Your task to perform on an android device: change the clock display to digital Image 0: 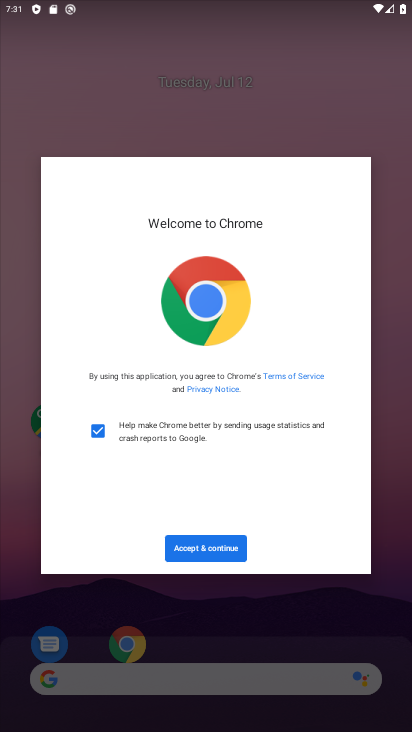
Step 0: click (240, 583)
Your task to perform on an android device: change the clock display to digital Image 1: 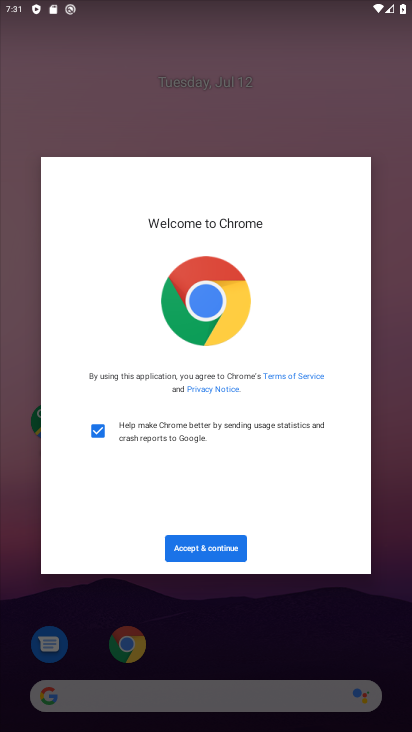
Step 1: press home button
Your task to perform on an android device: change the clock display to digital Image 2: 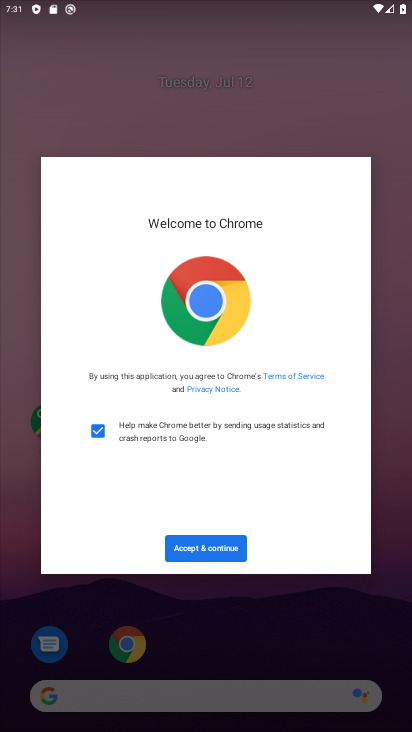
Step 2: drag from (290, 334) to (330, 150)
Your task to perform on an android device: change the clock display to digital Image 3: 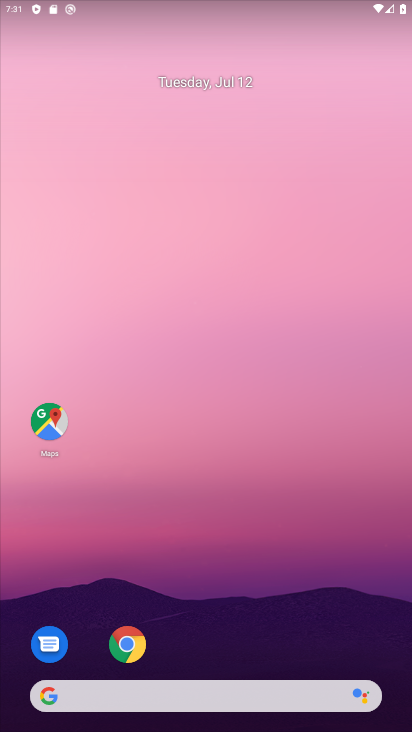
Step 3: drag from (179, 621) to (206, 313)
Your task to perform on an android device: change the clock display to digital Image 4: 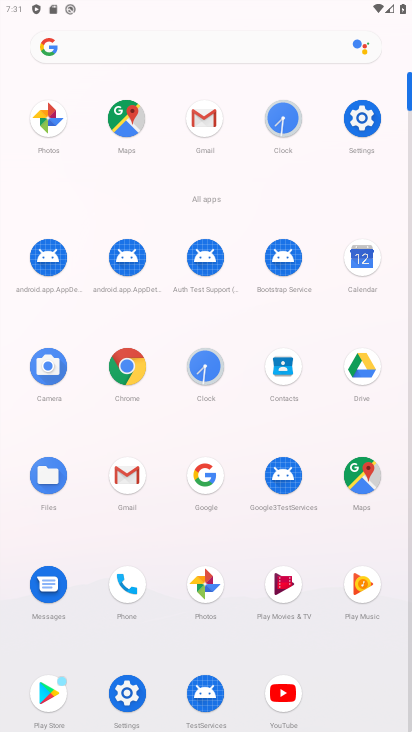
Step 4: click (202, 375)
Your task to perform on an android device: change the clock display to digital Image 5: 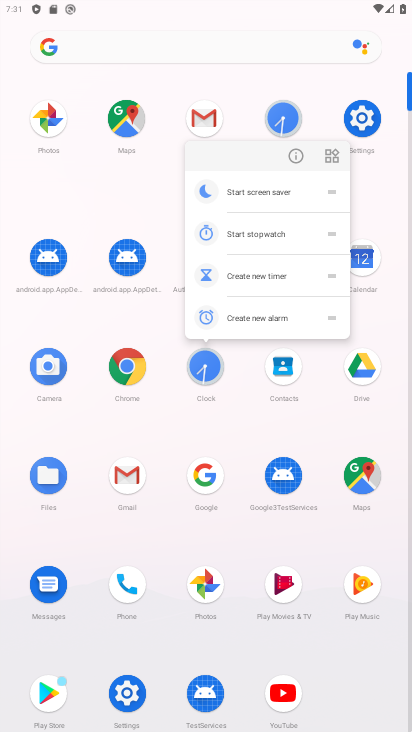
Step 5: click (296, 159)
Your task to perform on an android device: change the clock display to digital Image 6: 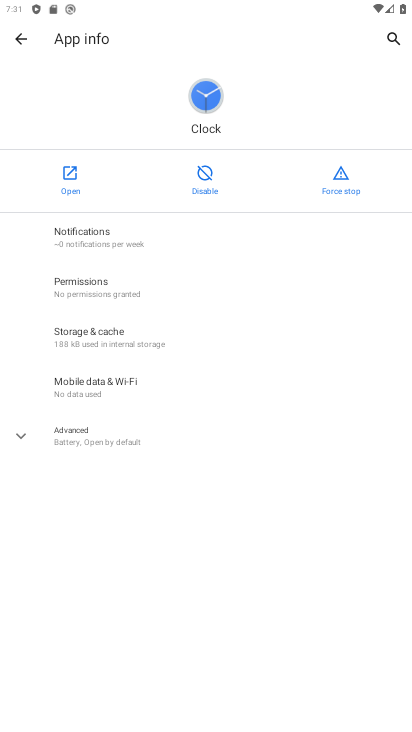
Step 6: click (71, 186)
Your task to perform on an android device: change the clock display to digital Image 7: 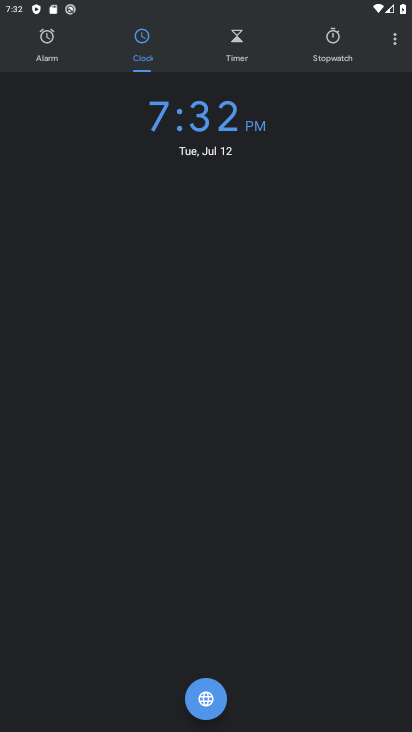
Step 7: click (269, 465)
Your task to perform on an android device: change the clock display to digital Image 8: 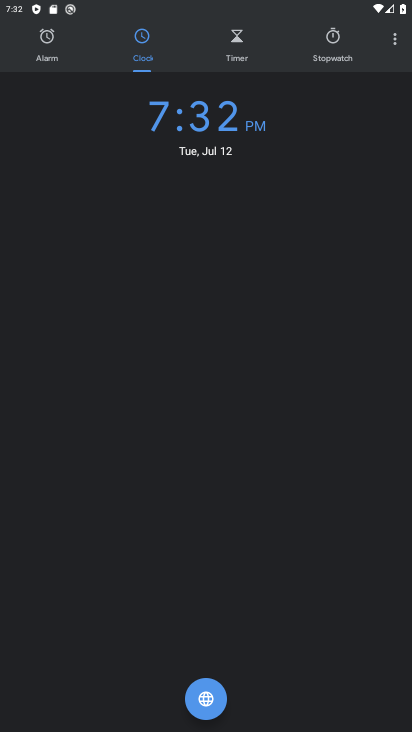
Step 8: drag from (411, 36) to (409, 0)
Your task to perform on an android device: change the clock display to digital Image 9: 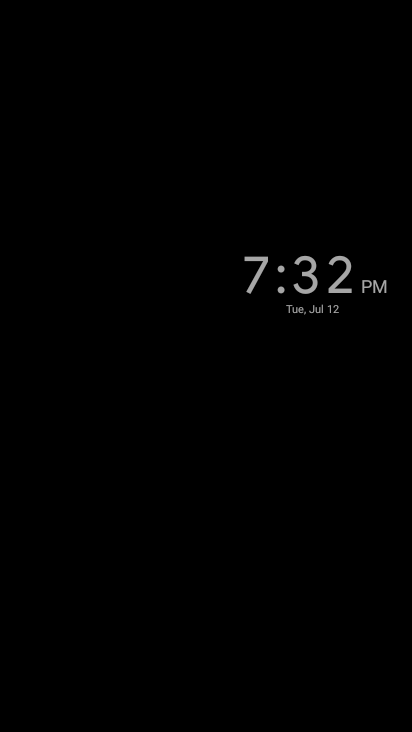
Step 9: click (199, 361)
Your task to perform on an android device: change the clock display to digital Image 10: 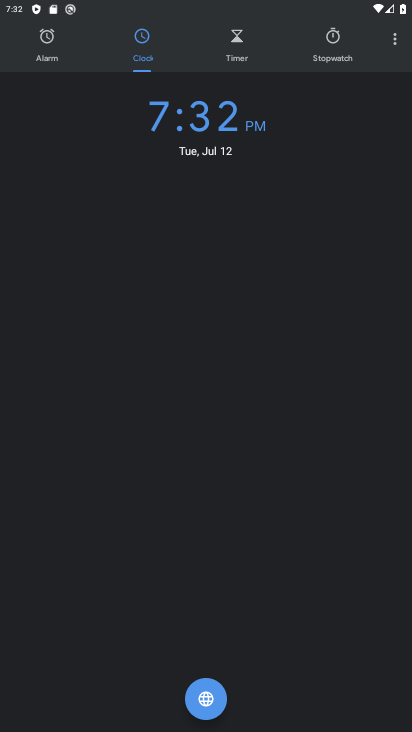
Step 10: click (391, 43)
Your task to perform on an android device: change the clock display to digital Image 11: 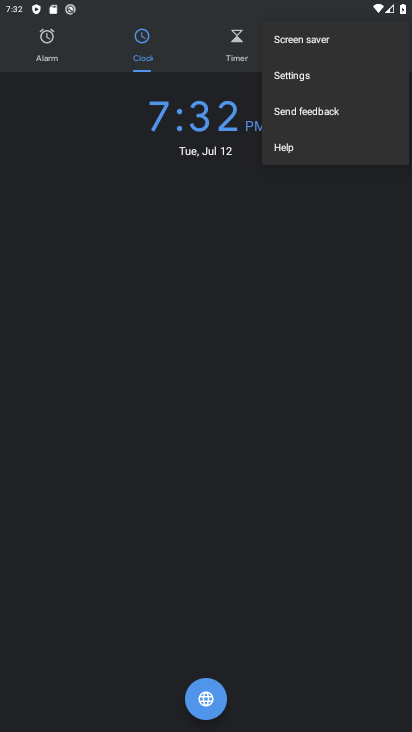
Step 11: click (300, 75)
Your task to perform on an android device: change the clock display to digital Image 12: 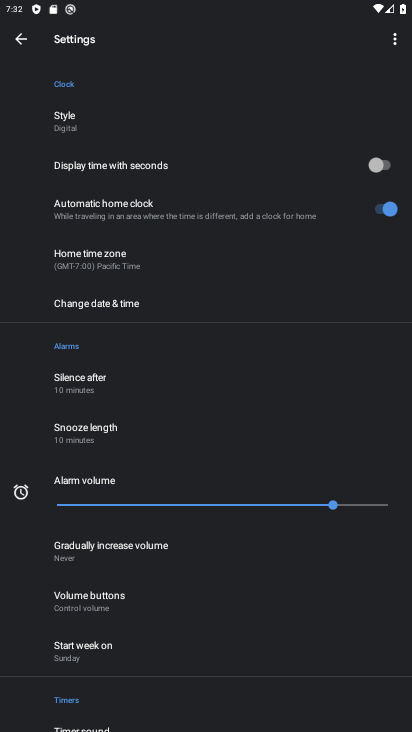
Step 12: click (101, 121)
Your task to perform on an android device: change the clock display to digital Image 13: 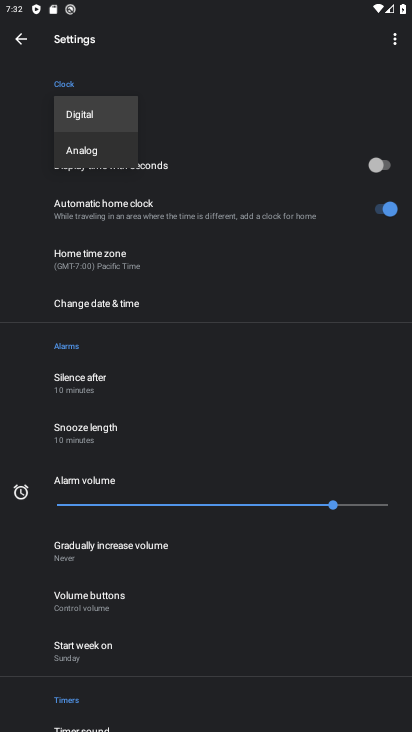
Step 13: click (85, 110)
Your task to perform on an android device: change the clock display to digital Image 14: 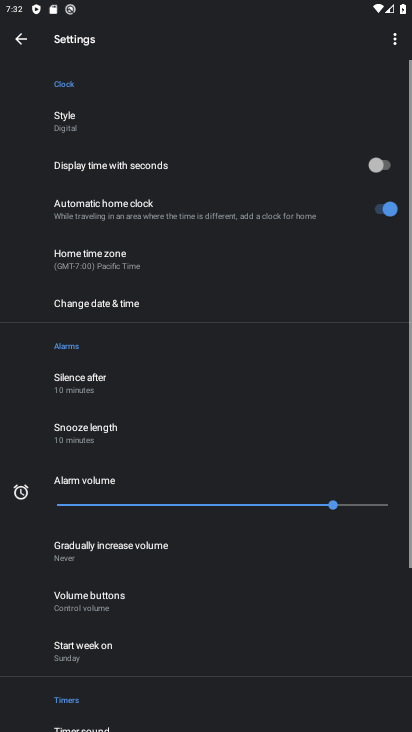
Step 14: task complete